Your task to perform on an android device: Open Google Maps Image 0: 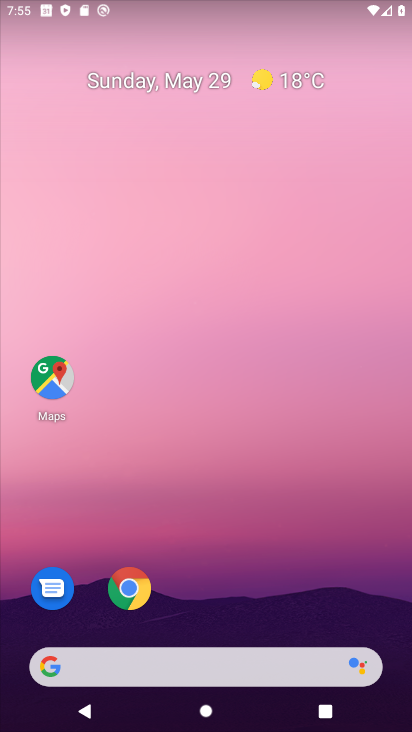
Step 0: click (53, 372)
Your task to perform on an android device: Open Google Maps Image 1: 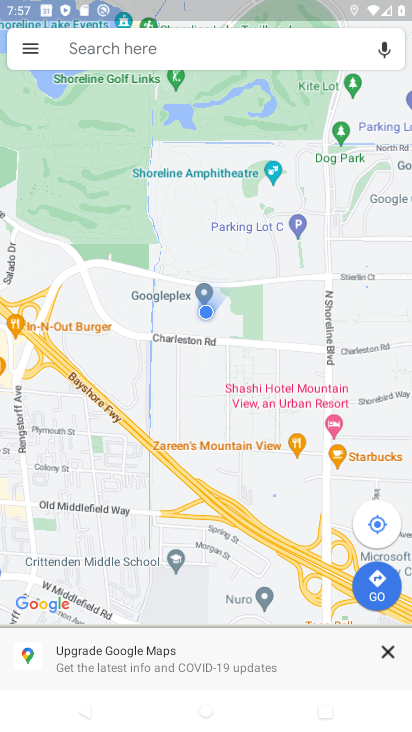
Step 1: task complete